Your task to perform on an android device: turn off notifications in google photos Image 0: 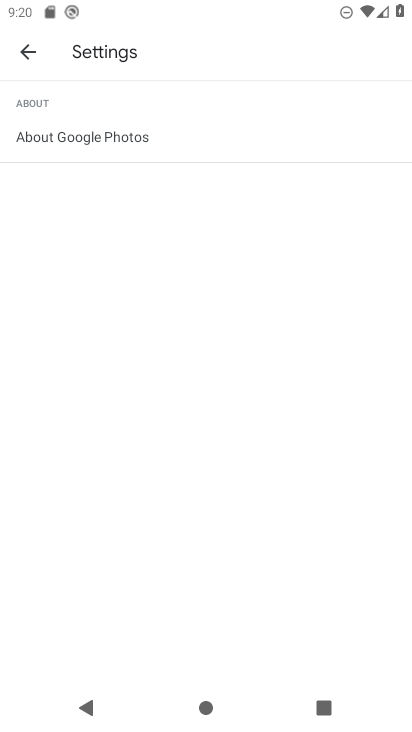
Step 0: press home button
Your task to perform on an android device: turn off notifications in google photos Image 1: 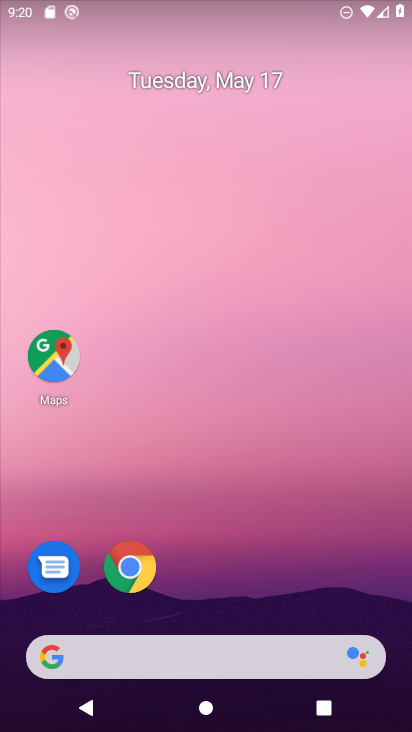
Step 1: drag from (218, 608) to (305, 74)
Your task to perform on an android device: turn off notifications in google photos Image 2: 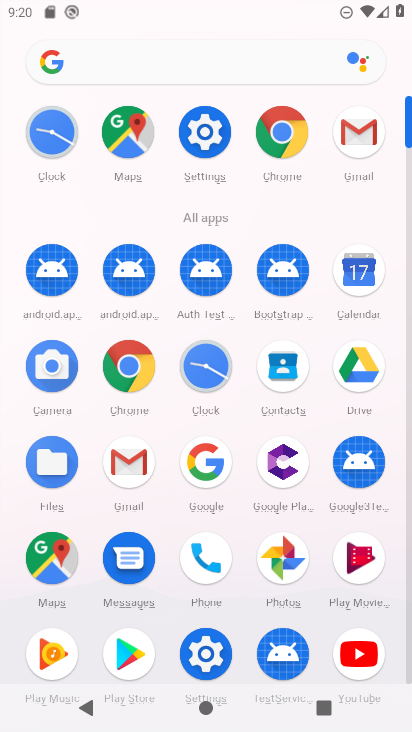
Step 2: click (286, 580)
Your task to perform on an android device: turn off notifications in google photos Image 3: 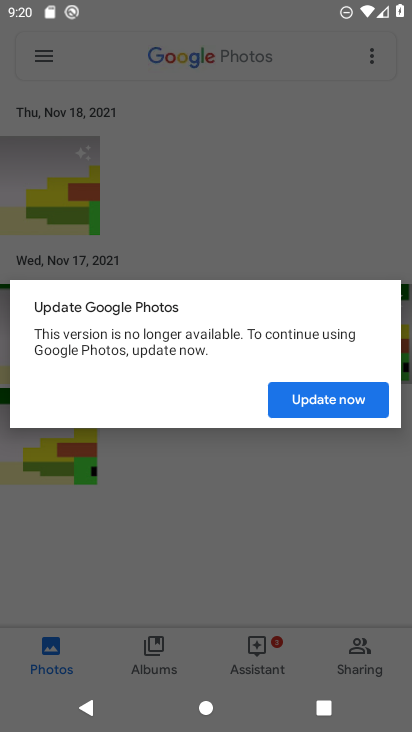
Step 3: click (328, 406)
Your task to perform on an android device: turn off notifications in google photos Image 4: 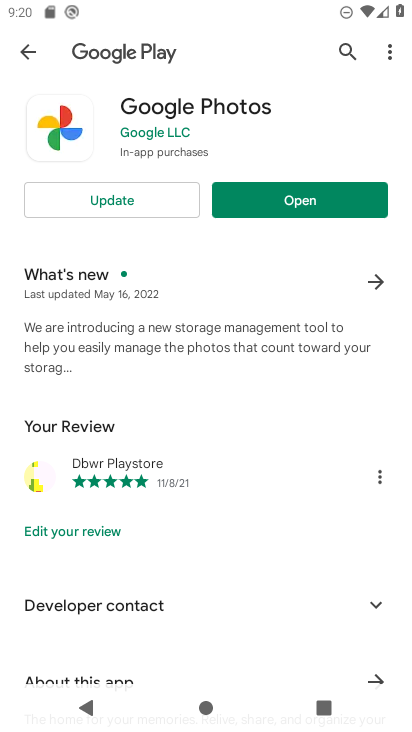
Step 4: click (149, 202)
Your task to perform on an android device: turn off notifications in google photos Image 5: 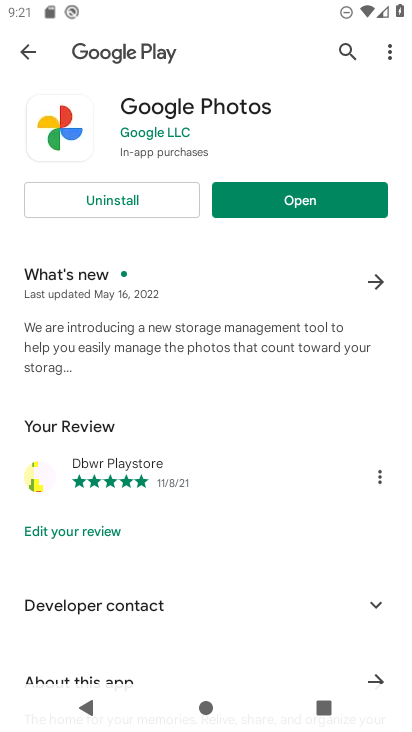
Step 5: click (294, 202)
Your task to perform on an android device: turn off notifications in google photos Image 6: 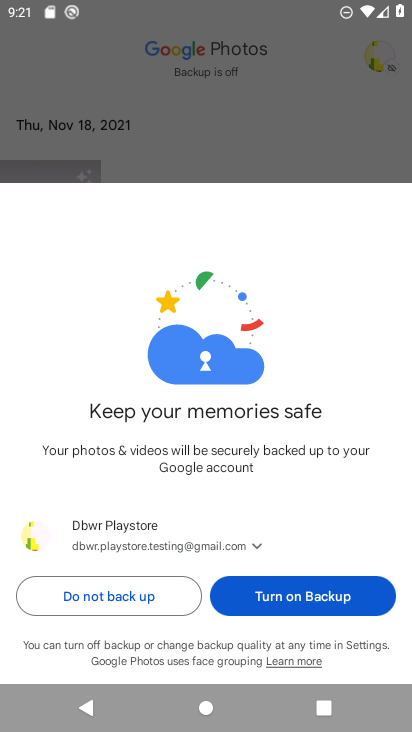
Step 6: click (275, 606)
Your task to perform on an android device: turn off notifications in google photos Image 7: 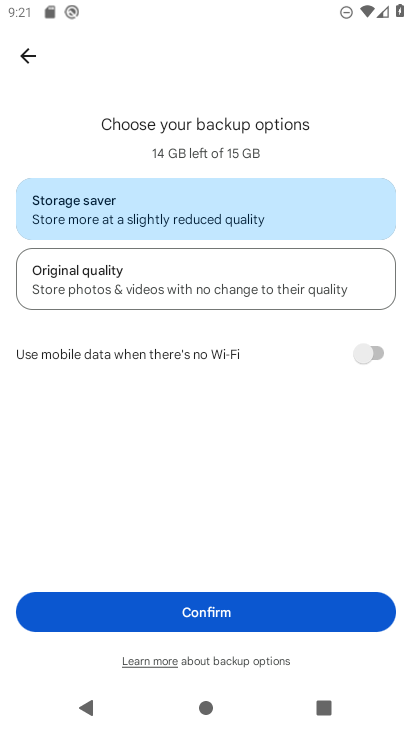
Step 7: click (275, 606)
Your task to perform on an android device: turn off notifications in google photos Image 8: 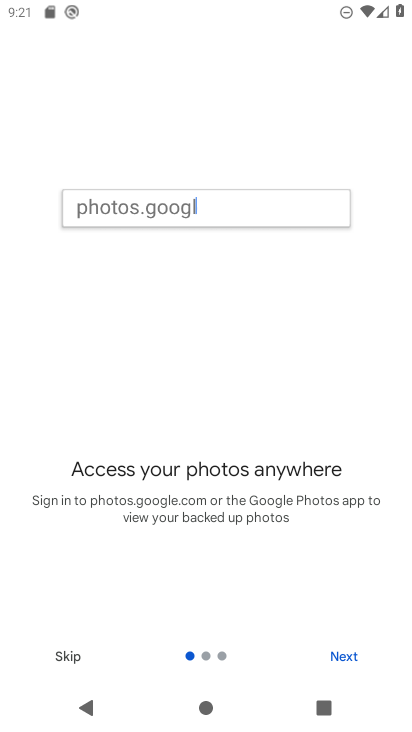
Step 8: click (336, 652)
Your task to perform on an android device: turn off notifications in google photos Image 9: 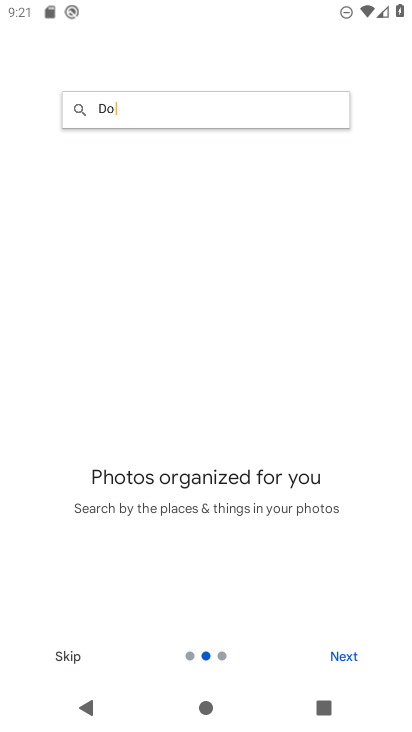
Step 9: click (336, 652)
Your task to perform on an android device: turn off notifications in google photos Image 10: 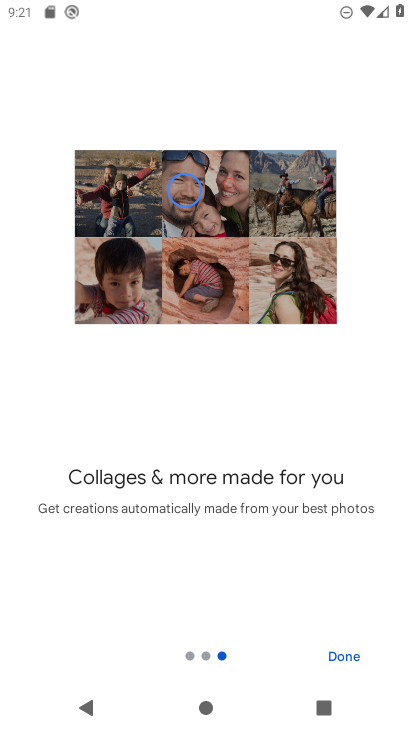
Step 10: click (336, 652)
Your task to perform on an android device: turn off notifications in google photos Image 11: 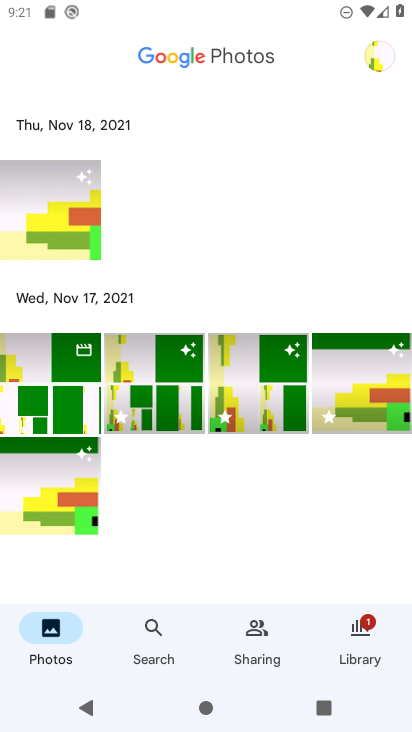
Step 11: click (386, 60)
Your task to perform on an android device: turn off notifications in google photos Image 12: 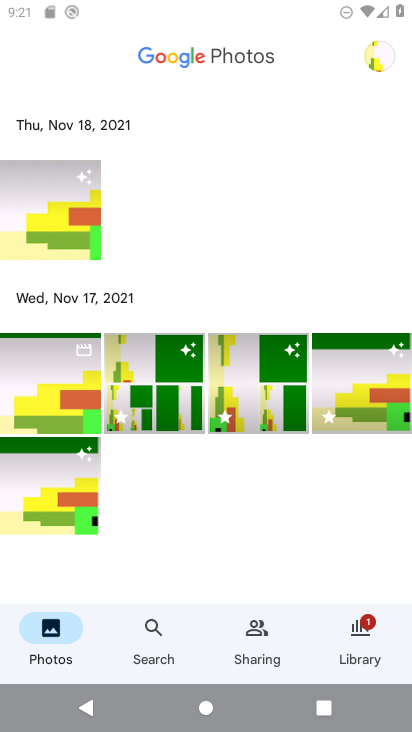
Step 12: click (388, 71)
Your task to perform on an android device: turn off notifications in google photos Image 13: 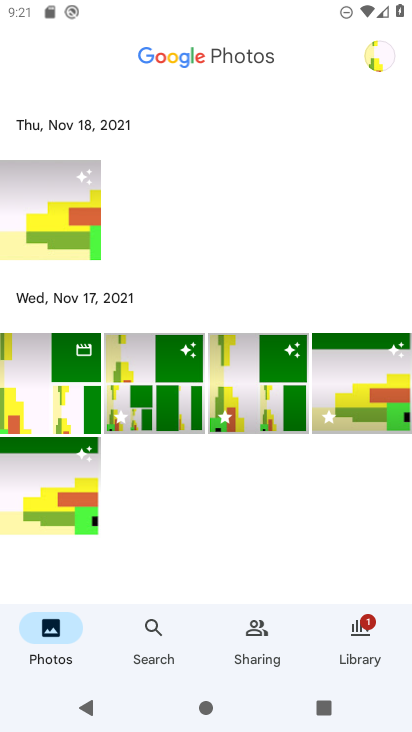
Step 13: click (381, 76)
Your task to perform on an android device: turn off notifications in google photos Image 14: 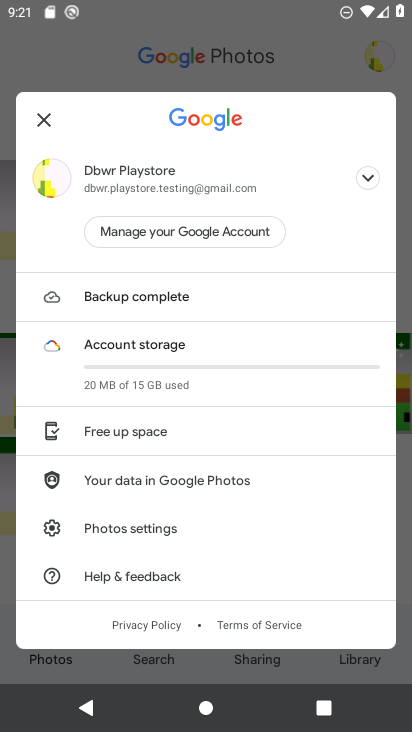
Step 14: click (163, 528)
Your task to perform on an android device: turn off notifications in google photos Image 15: 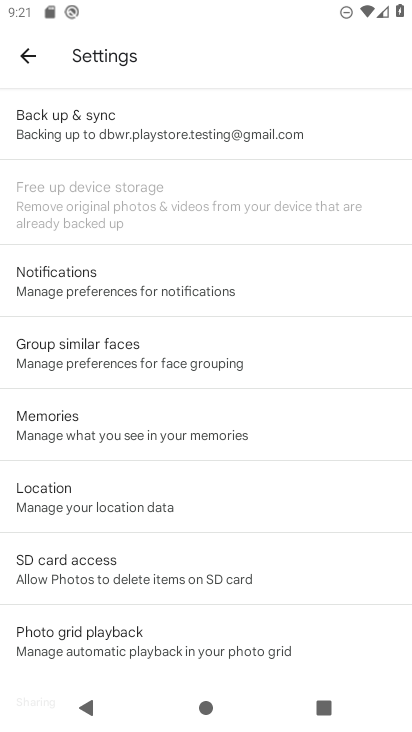
Step 15: click (138, 291)
Your task to perform on an android device: turn off notifications in google photos Image 16: 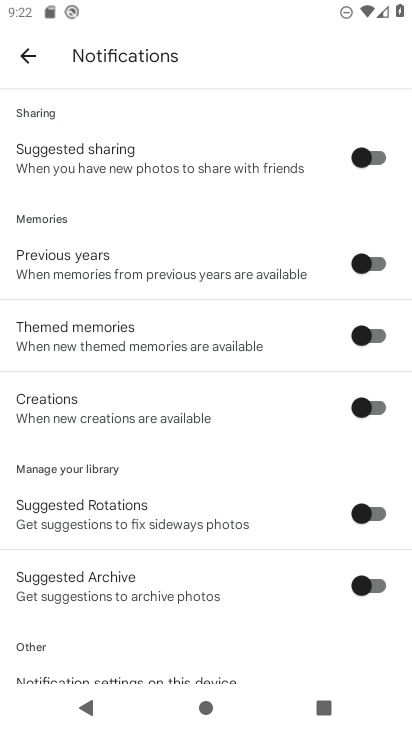
Step 16: drag from (95, 636) to (195, 352)
Your task to perform on an android device: turn off notifications in google photos Image 17: 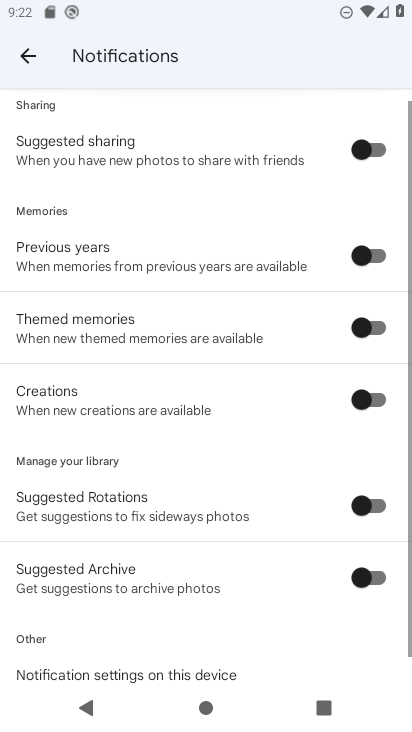
Step 17: drag from (195, 351) to (236, 116)
Your task to perform on an android device: turn off notifications in google photos Image 18: 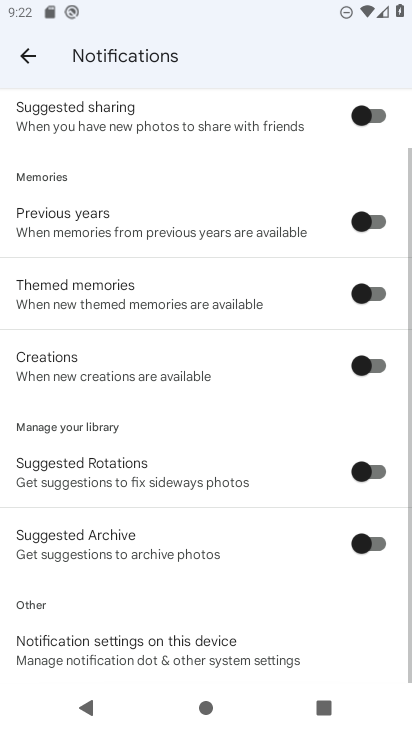
Step 18: click (133, 650)
Your task to perform on an android device: turn off notifications in google photos Image 19: 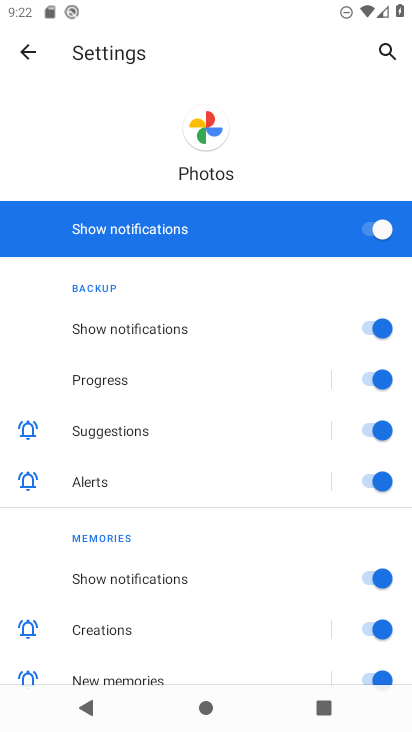
Step 19: click (365, 228)
Your task to perform on an android device: turn off notifications in google photos Image 20: 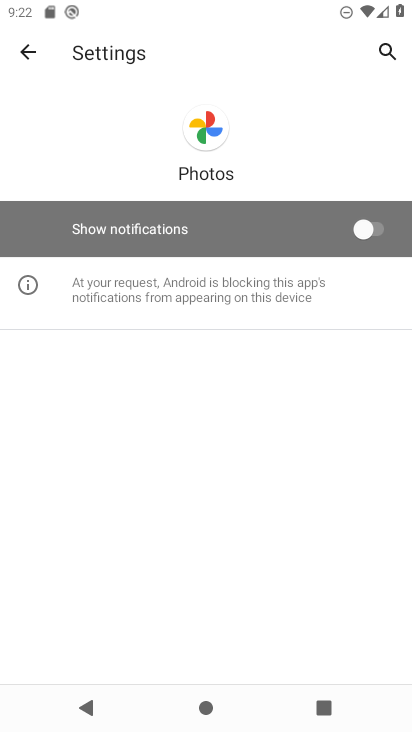
Step 20: task complete